Your task to perform on an android device: turn smart compose on in the gmail app Image 0: 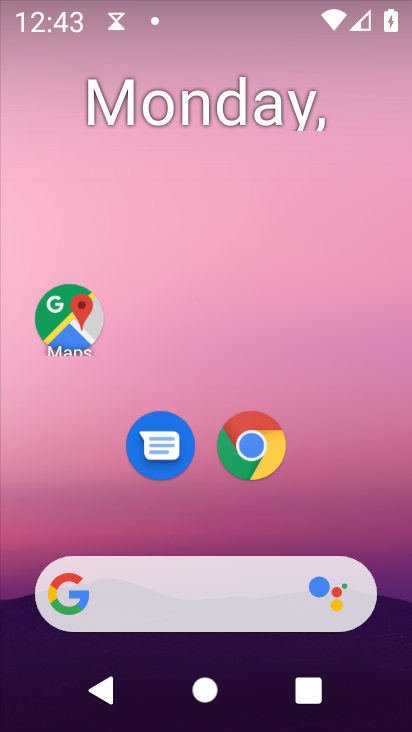
Step 0: drag from (384, 638) to (271, 64)
Your task to perform on an android device: turn smart compose on in the gmail app Image 1: 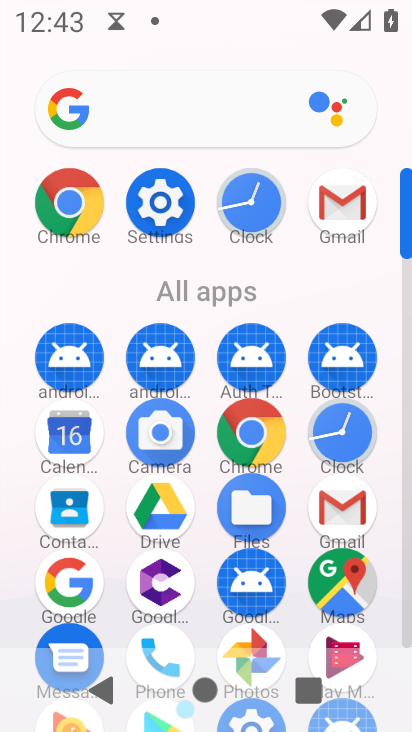
Step 1: click (316, 504)
Your task to perform on an android device: turn smart compose on in the gmail app Image 2: 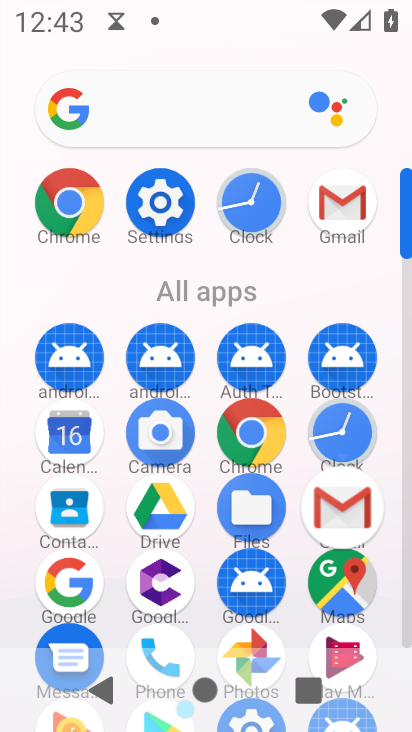
Step 2: click (358, 505)
Your task to perform on an android device: turn smart compose on in the gmail app Image 3: 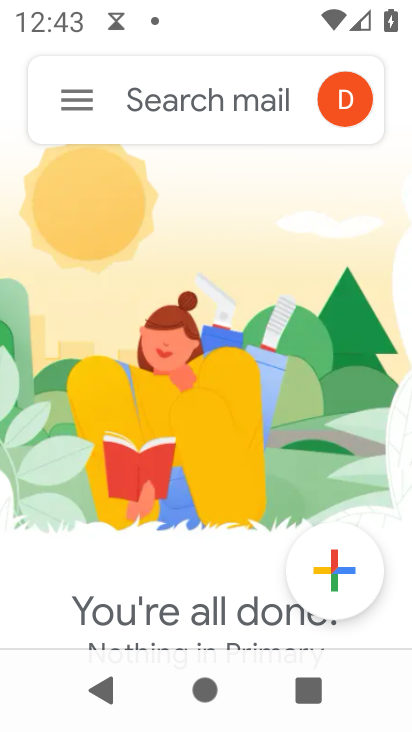
Step 3: click (82, 94)
Your task to perform on an android device: turn smart compose on in the gmail app Image 4: 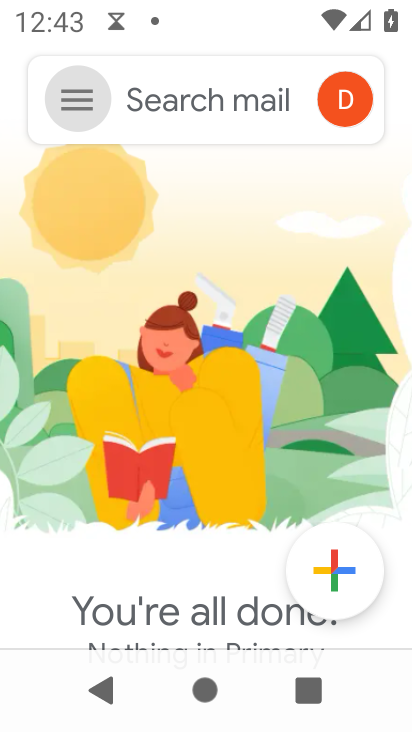
Step 4: click (82, 94)
Your task to perform on an android device: turn smart compose on in the gmail app Image 5: 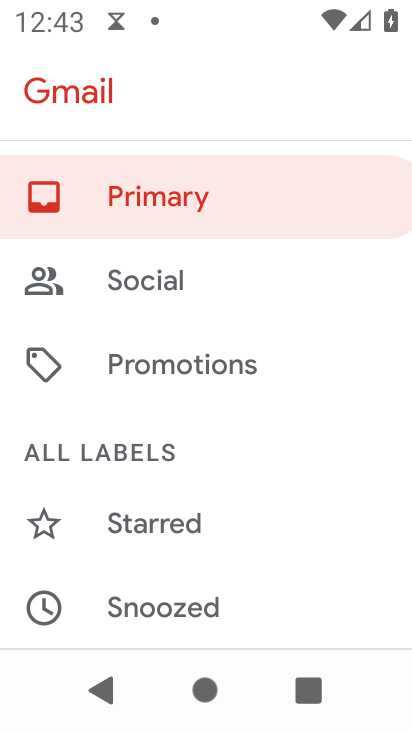
Step 5: click (82, 94)
Your task to perform on an android device: turn smart compose on in the gmail app Image 6: 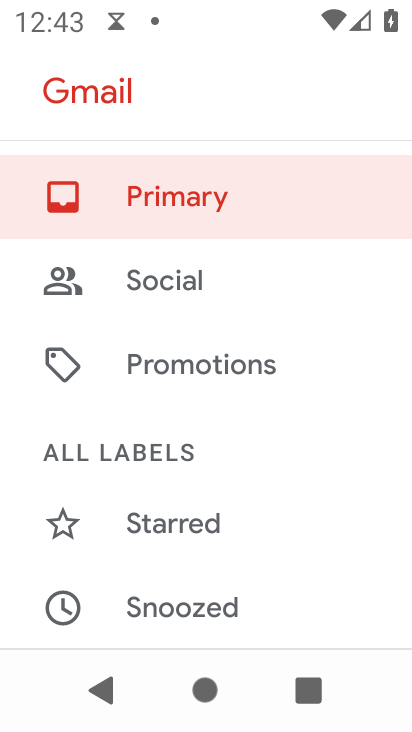
Step 6: drag from (290, 493) to (262, 155)
Your task to perform on an android device: turn smart compose on in the gmail app Image 7: 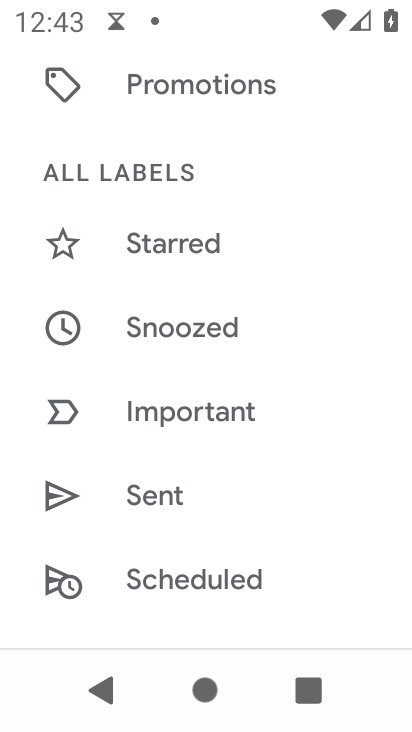
Step 7: drag from (259, 437) to (258, 120)
Your task to perform on an android device: turn smart compose on in the gmail app Image 8: 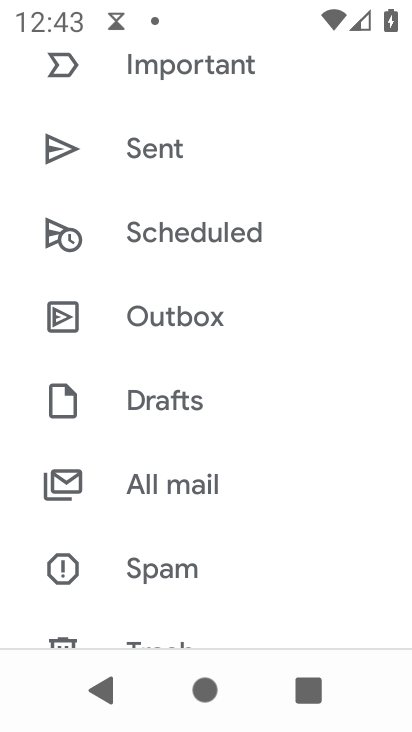
Step 8: drag from (253, 419) to (252, 41)
Your task to perform on an android device: turn smart compose on in the gmail app Image 9: 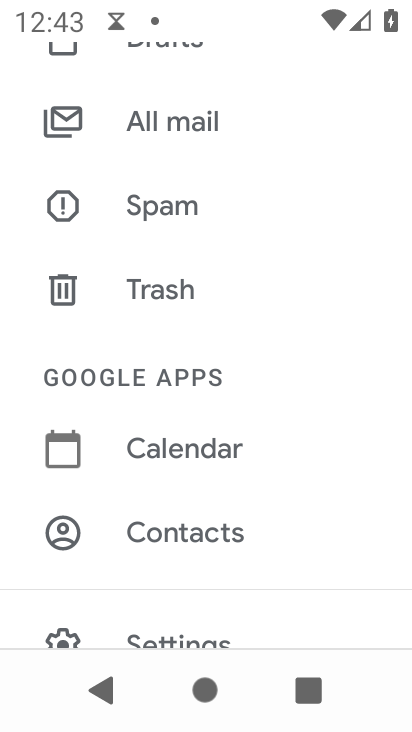
Step 9: drag from (236, 437) to (229, 141)
Your task to perform on an android device: turn smart compose on in the gmail app Image 10: 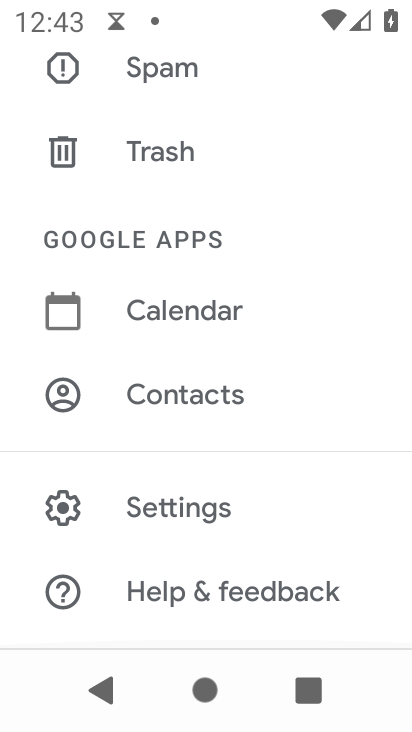
Step 10: drag from (283, 114) to (285, 61)
Your task to perform on an android device: turn smart compose on in the gmail app Image 11: 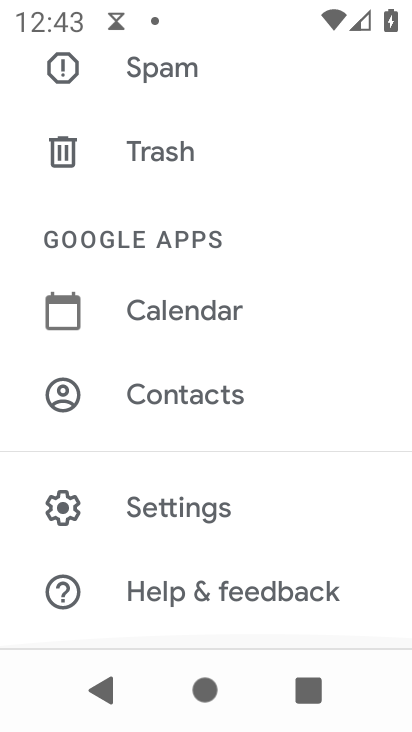
Step 11: drag from (275, 388) to (291, 30)
Your task to perform on an android device: turn smart compose on in the gmail app Image 12: 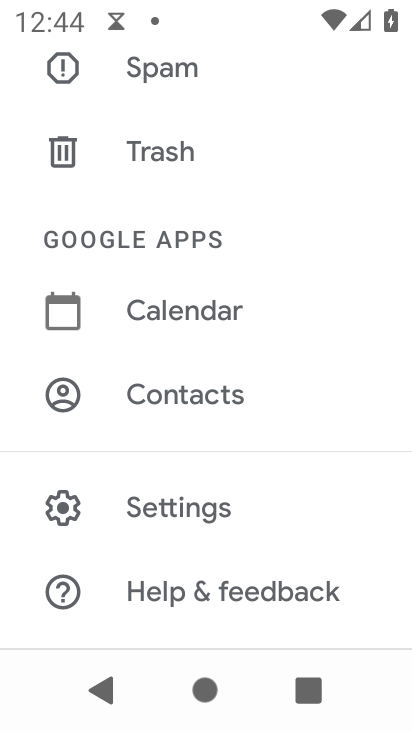
Step 12: click (169, 506)
Your task to perform on an android device: turn smart compose on in the gmail app Image 13: 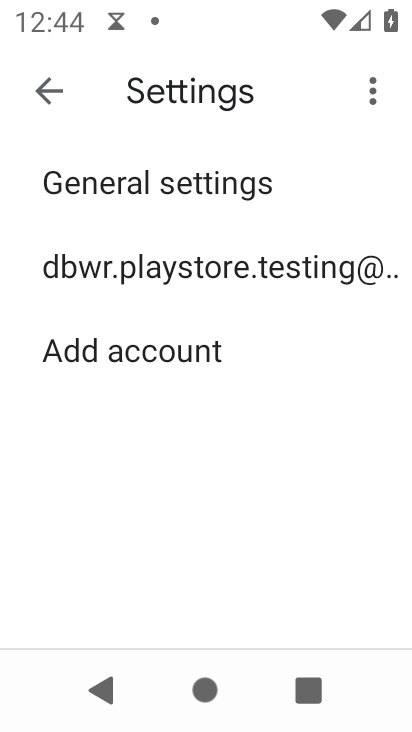
Step 13: click (190, 257)
Your task to perform on an android device: turn smart compose on in the gmail app Image 14: 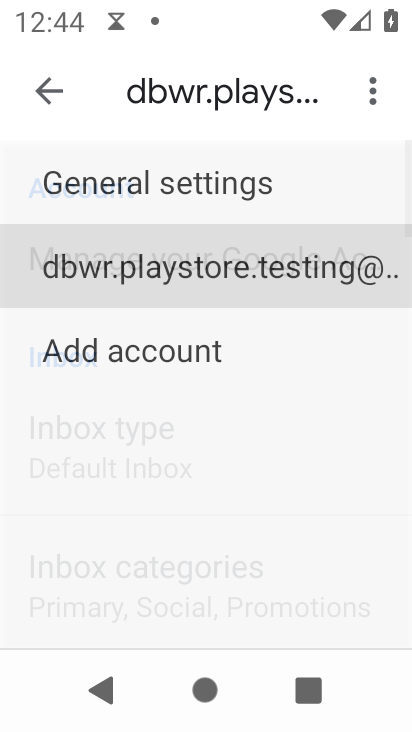
Step 14: click (195, 259)
Your task to perform on an android device: turn smart compose on in the gmail app Image 15: 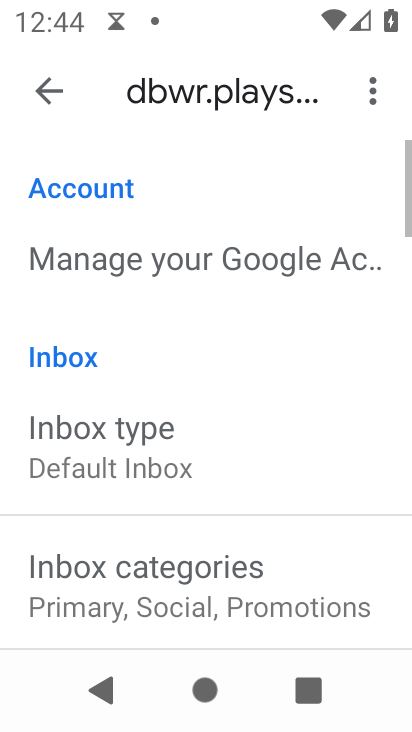
Step 15: click (195, 259)
Your task to perform on an android device: turn smart compose on in the gmail app Image 16: 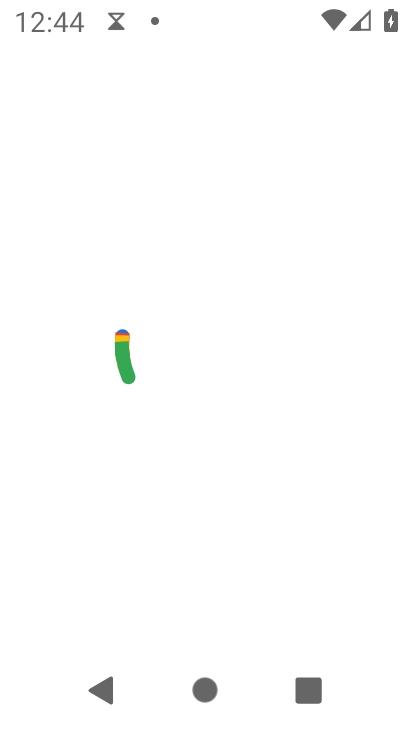
Step 16: press back button
Your task to perform on an android device: turn smart compose on in the gmail app Image 17: 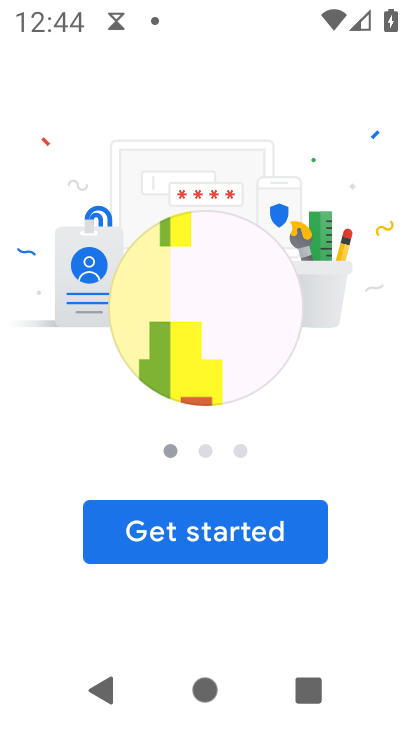
Step 17: press home button
Your task to perform on an android device: turn smart compose on in the gmail app Image 18: 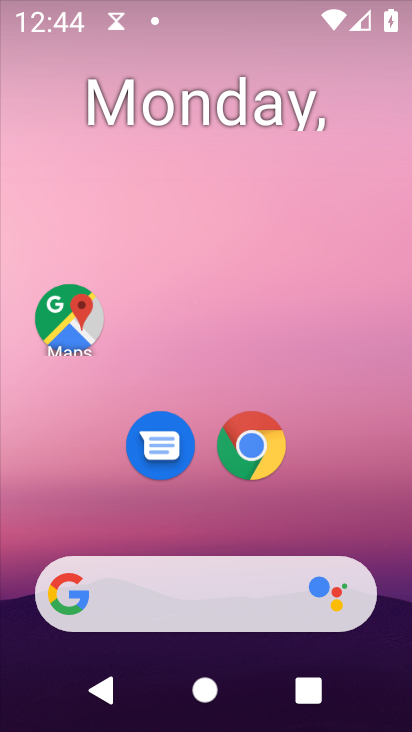
Step 18: drag from (280, 526) to (141, 69)
Your task to perform on an android device: turn smart compose on in the gmail app Image 19: 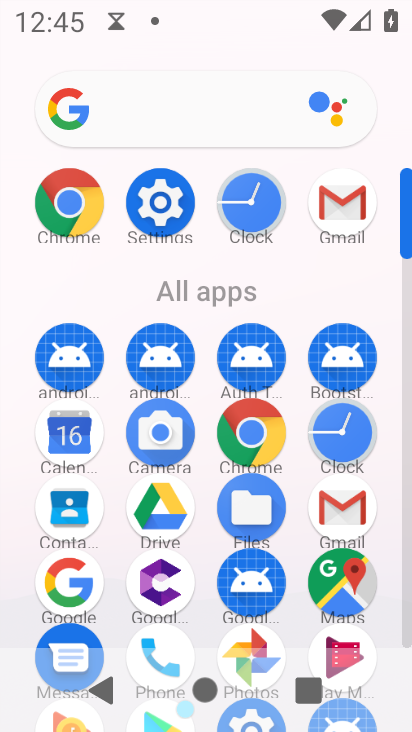
Step 19: click (331, 496)
Your task to perform on an android device: turn smart compose on in the gmail app Image 20: 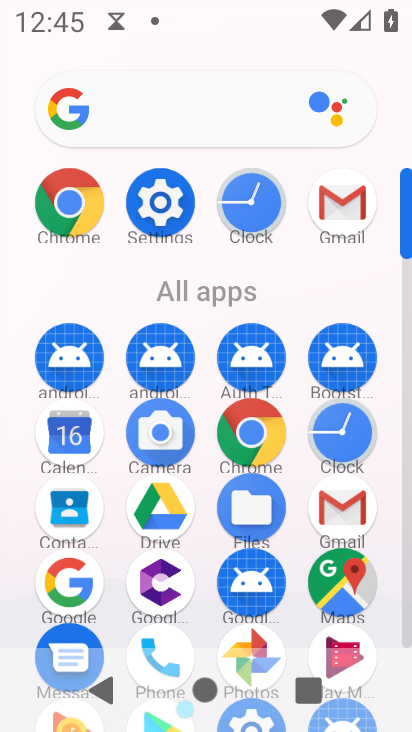
Step 20: click (331, 498)
Your task to perform on an android device: turn smart compose on in the gmail app Image 21: 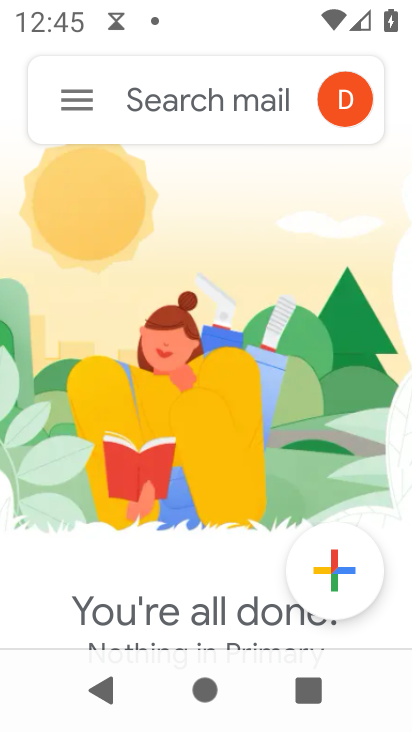
Step 21: drag from (189, 550) to (160, 97)
Your task to perform on an android device: turn smart compose on in the gmail app Image 22: 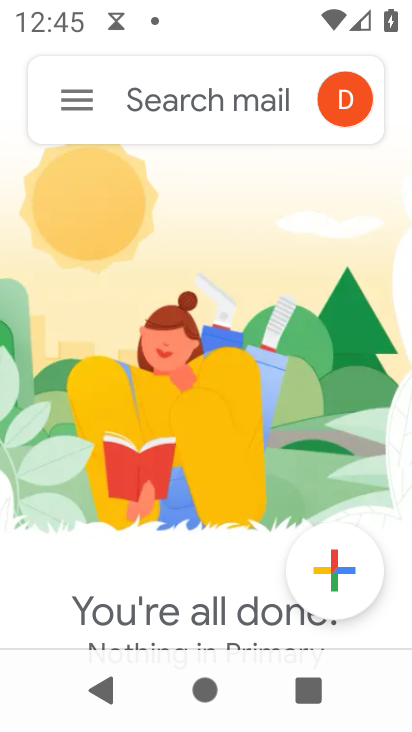
Step 22: drag from (210, 415) to (224, 186)
Your task to perform on an android device: turn smart compose on in the gmail app Image 23: 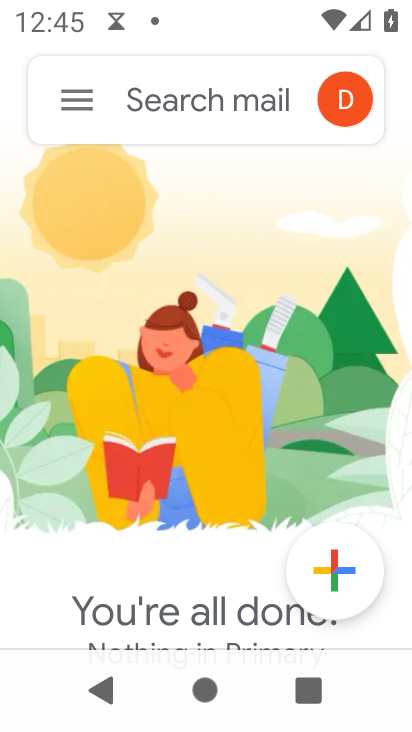
Step 23: click (76, 103)
Your task to perform on an android device: turn smart compose on in the gmail app Image 24: 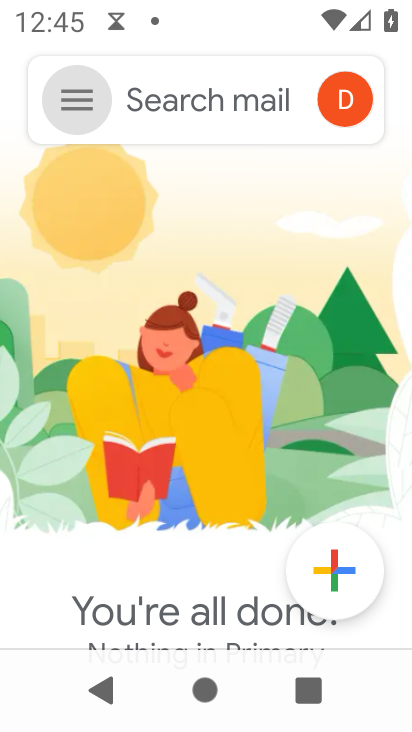
Step 24: click (76, 103)
Your task to perform on an android device: turn smart compose on in the gmail app Image 25: 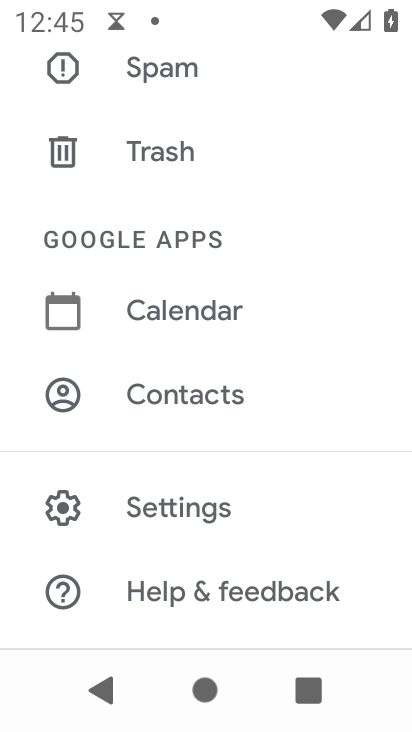
Step 25: click (187, 509)
Your task to perform on an android device: turn smart compose on in the gmail app Image 26: 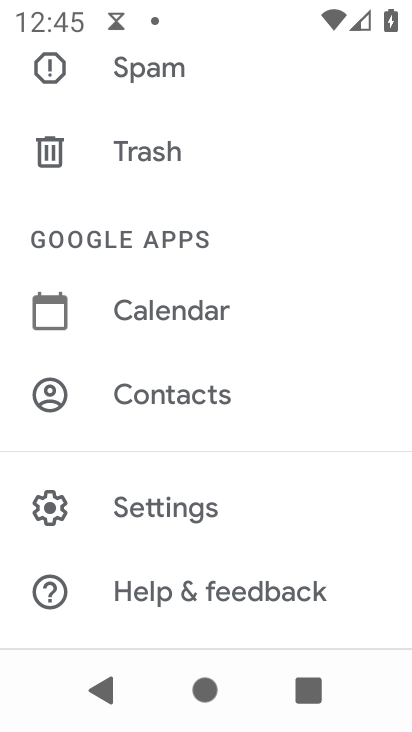
Step 26: click (187, 509)
Your task to perform on an android device: turn smart compose on in the gmail app Image 27: 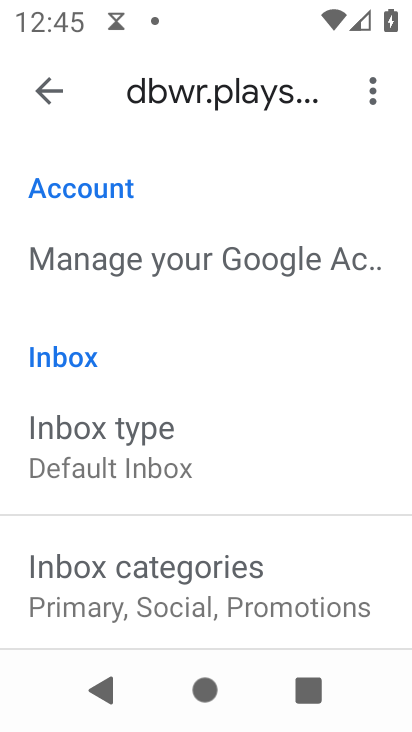
Step 27: task complete